Your task to perform on an android device: turn off picture-in-picture Image 0: 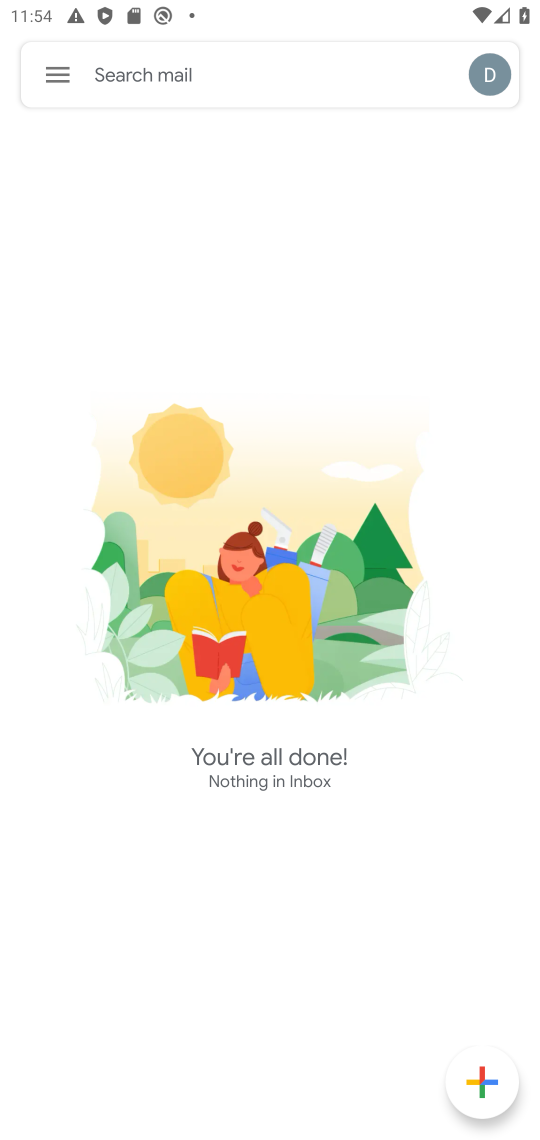
Step 0: press home button
Your task to perform on an android device: turn off picture-in-picture Image 1: 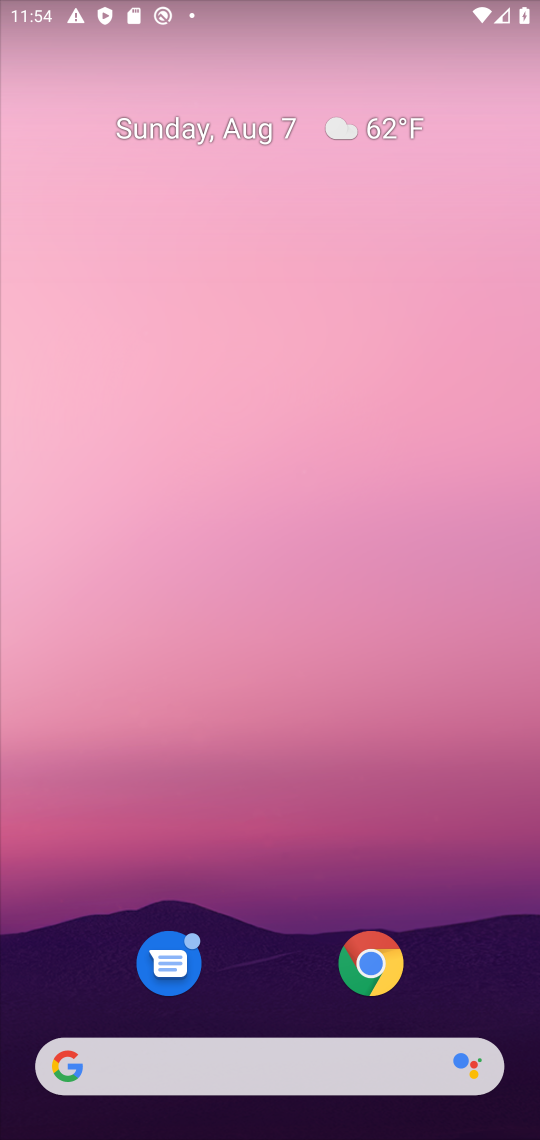
Step 1: drag from (494, 967) to (275, 48)
Your task to perform on an android device: turn off picture-in-picture Image 2: 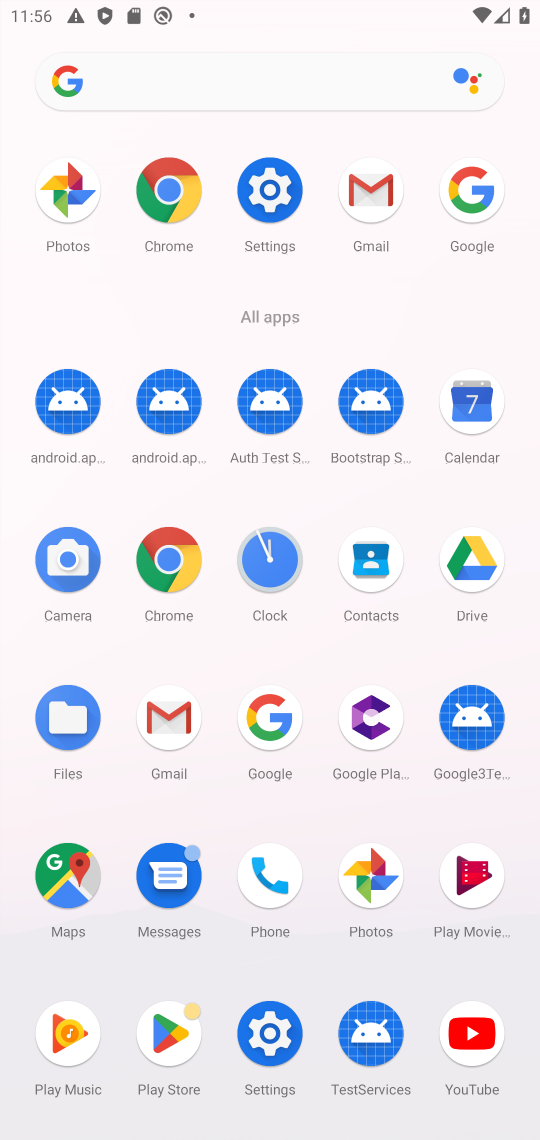
Step 2: click (181, 539)
Your task to perform on an android device: turn off picture-in-picture Image 3: 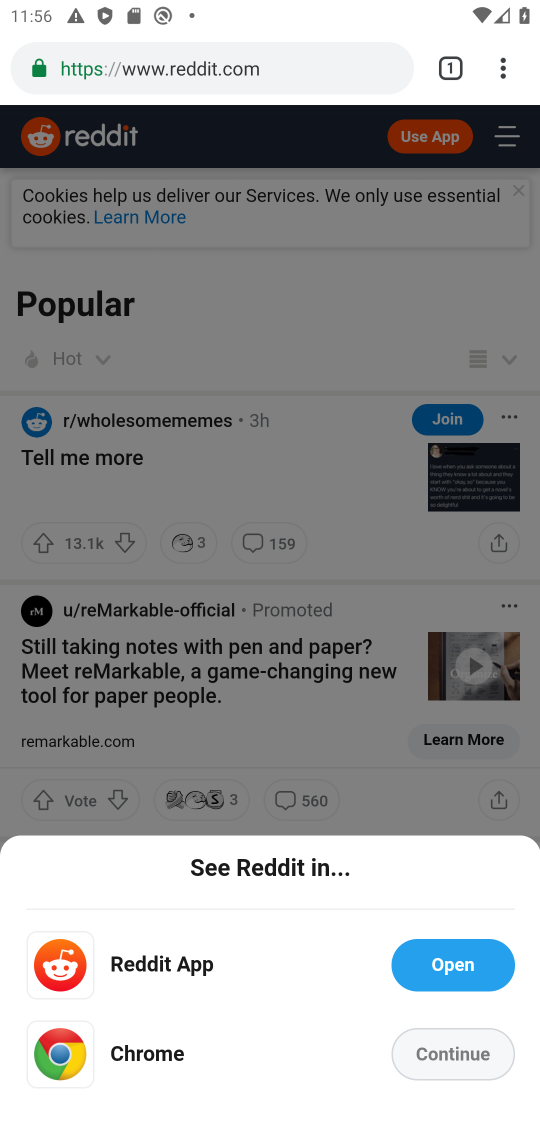
Step 3: task complete